Your task to perform on an android device: What is the recent news? Image 0: 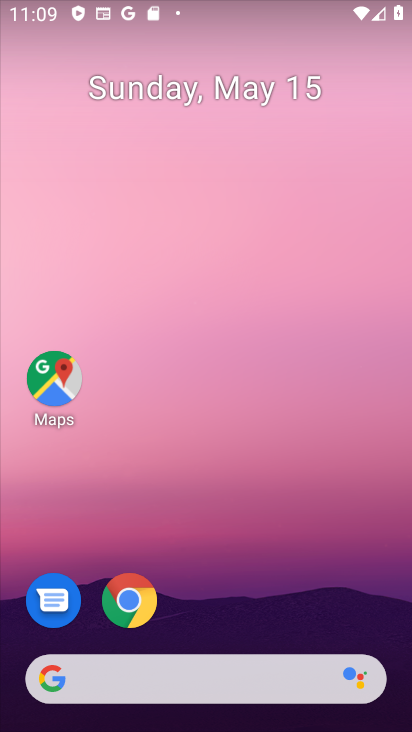
Step 0: click (168, 664)
Your task to perform on an android device: What is the recent news? Image 1: 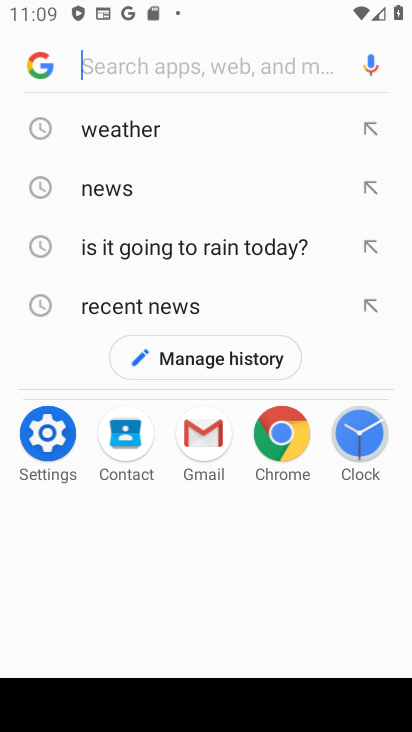
Step 1: click (97, 186)
Your task to perform on an android device: What is the recent news? Image 2: 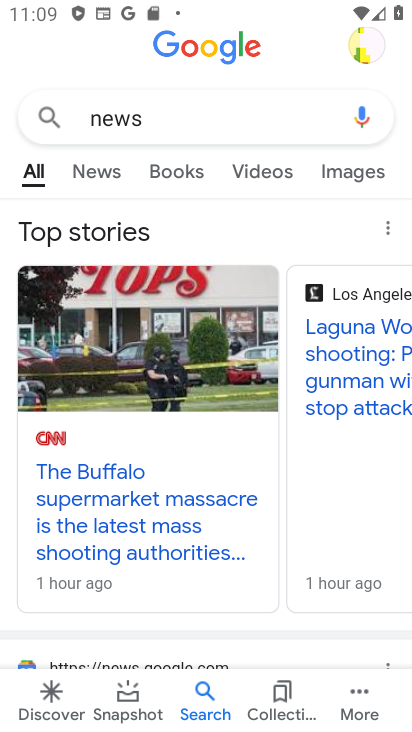
Step 2: task complete